Your task to perform on an android device: remove spam from my inbox in the gmail app Image 0: 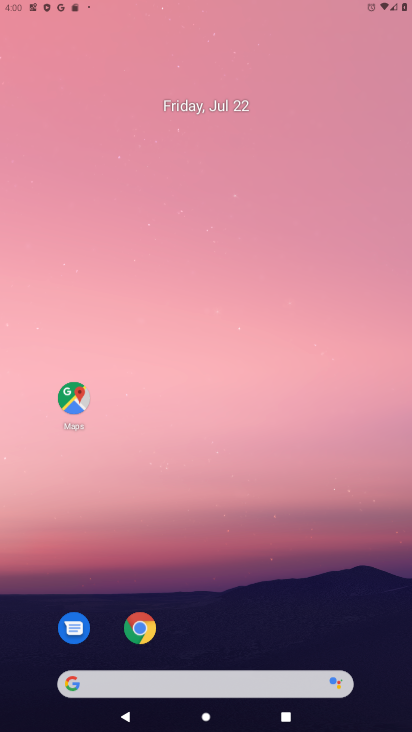
Step 0: press home button
Your task to perform on an android device: remove spam from my inbox in the gmail app Image 1: 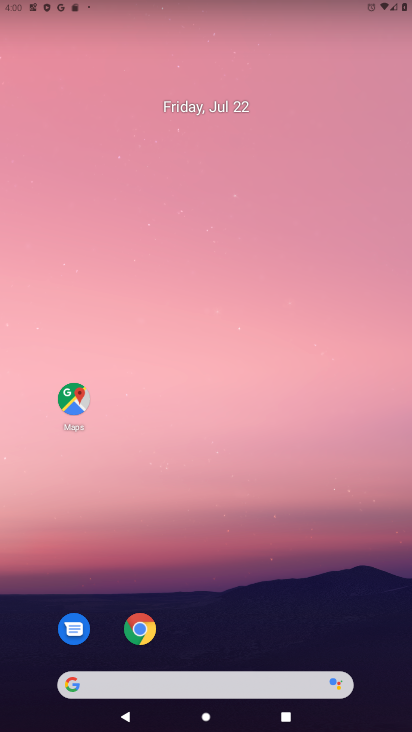
Step 1: drag from (230, 692) to (296, 297)
Your task to perform on an android device: remove spam from my inbox in the gmail app Image 2: 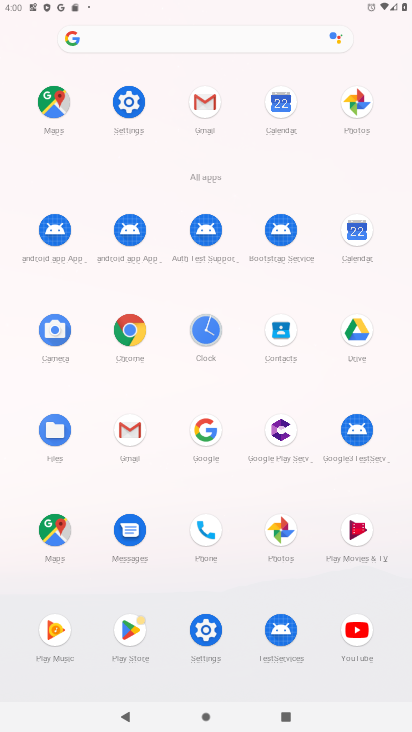
Step 2: click (146, 442)
Your task to perform on an android device: remove spam from my inbox in the gmail app Image 3: 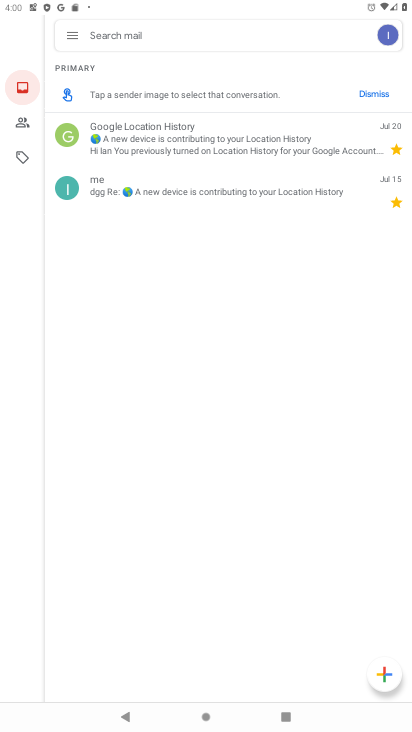
Step 3: click (70, 41)
Your task to perform on an android device: remove spam from my inbox in the gmail app Image 4: 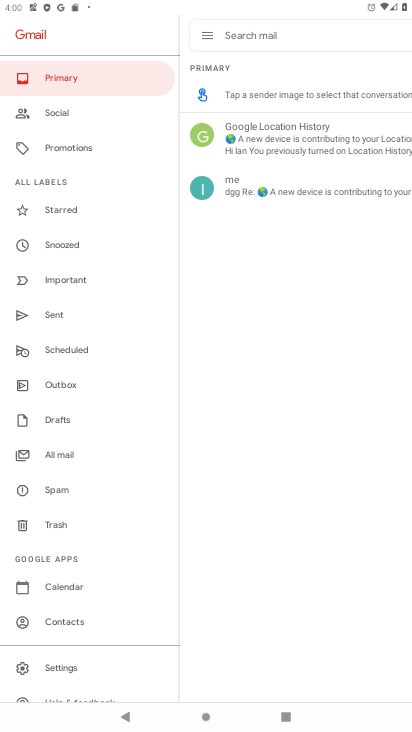
Step 4: click (70, 494)
Your task to perform on an android device: remove spam from my inbox in the gmail app Image 5: 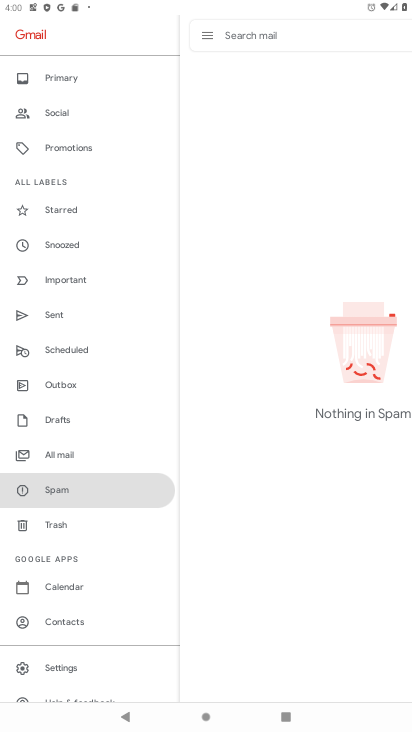
Step 5: task complete